Your task to perform on an android device: Search for coffee table on Crate & Barrel Image 0: 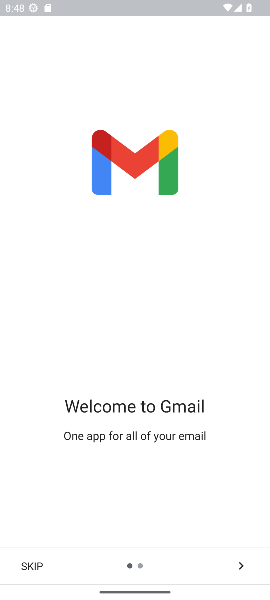
Step 0: press home button
Your task to perform on an android device: Search for coffee table on Crate & Barrel Image 1: 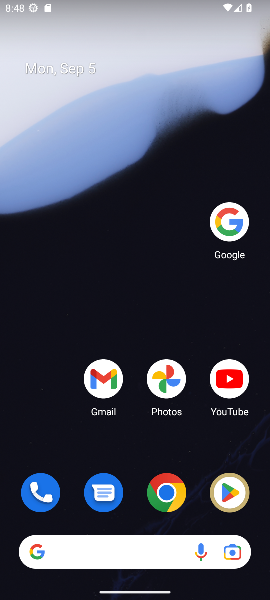
Step 1: click (249, 216)
Your task to perform on an android device: Search for coffee table on Crate & Barrel Image 2: 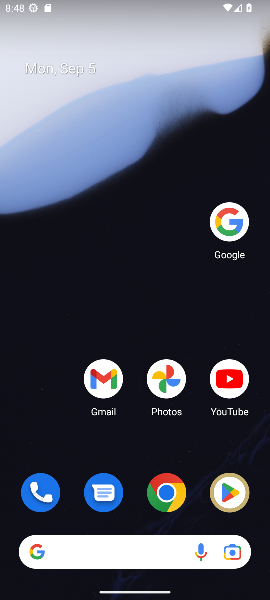
Step 2: click (217, 216)
Your task to perform on an android device: Search for coffee table on Crate & Barrel Image 3: 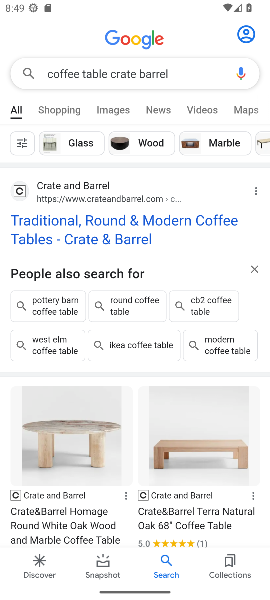
Step 3: task complete